Your task to perform on an android device: empty trash in google photos Image 0: 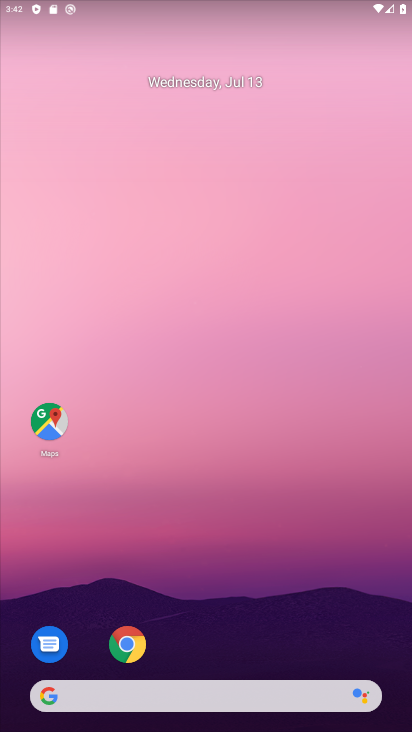
Step 0: drag from (287, 630) to (247, 30)
Your task to perform on an android device: empty trash in google photos Image 1: 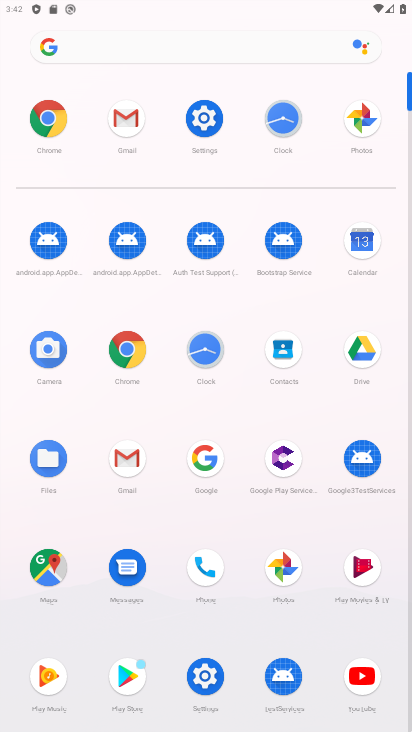
Step 1: click (282, 562)
Your task to perform on an android device: empty trash in google photos Image 2: 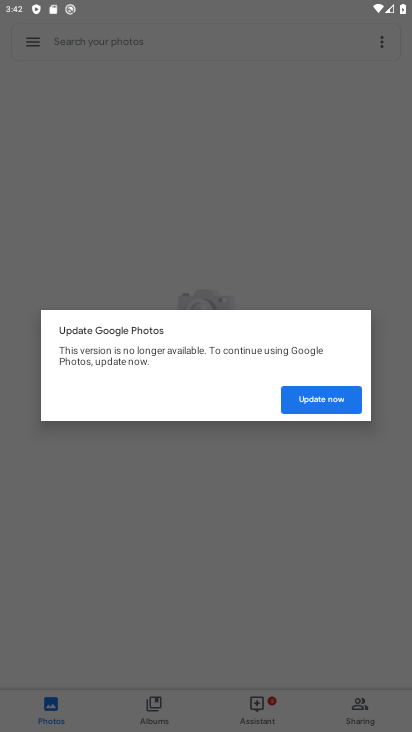
Step 2: click (296, 394)
Your task to perform on an android device: empty trash in google photos Image 3: 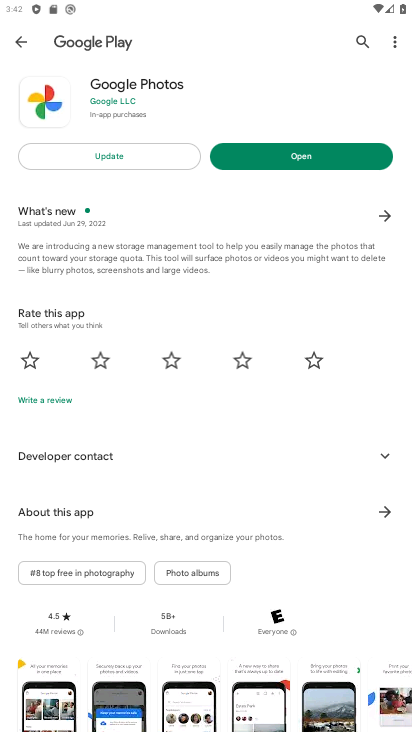
Step 3: click (286, 151)
Your task to perform on an android device: empty trash in google photos Image 4: 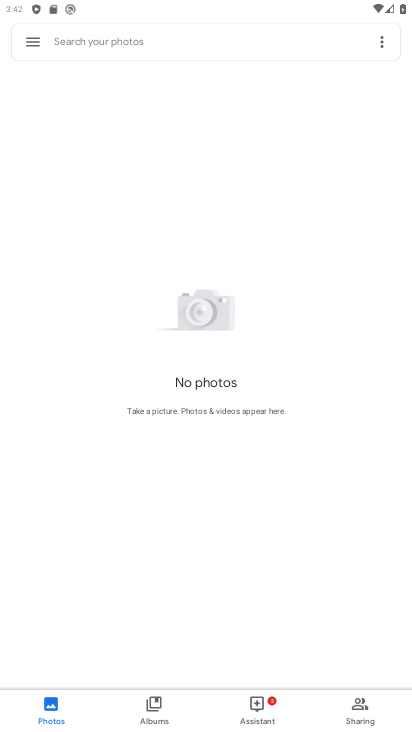
Step 4: click (42, 45)
Your task to perform on an android device: empty trash in google photos Image 5: 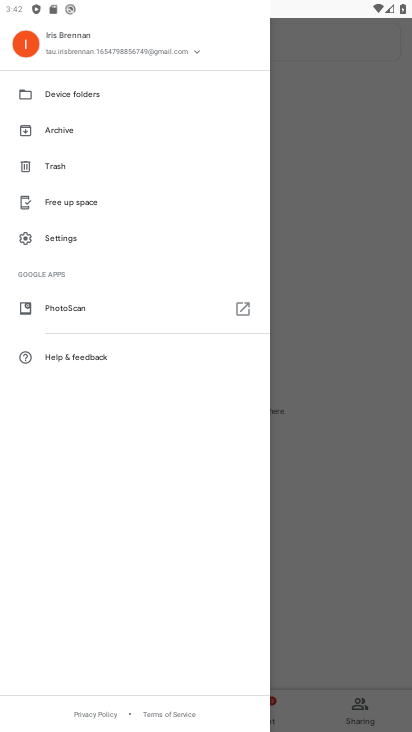
Step 5: click (81, 161)
Your task to perform on an android device: empty trash in google photos Image 6: 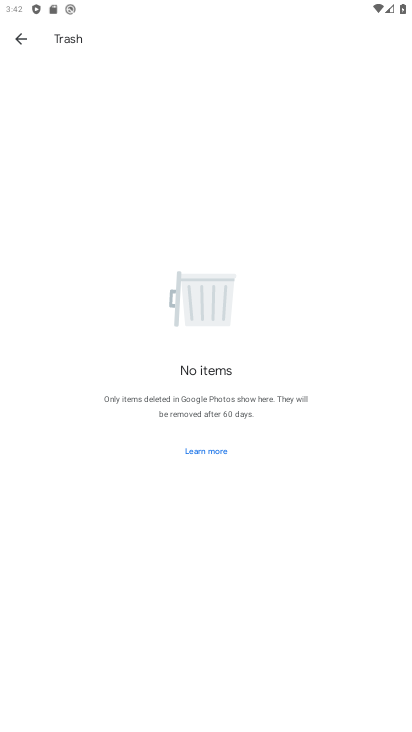
Step 6: task complete